Your task to perform on an android device: Open network settings Image 0: 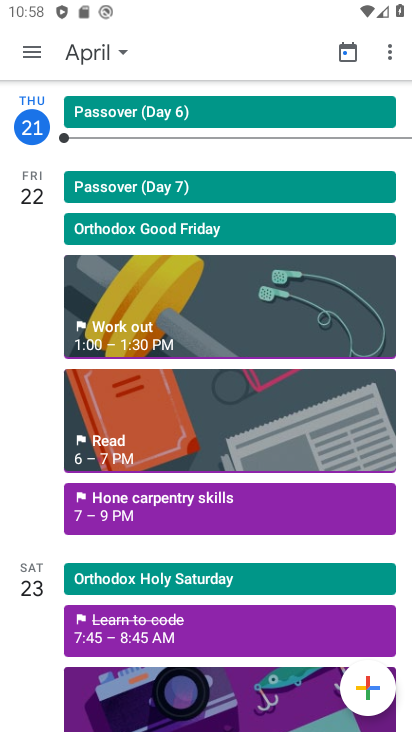
Step 0: press home button
Your task to perform on an android device: Open network settings Image 1: 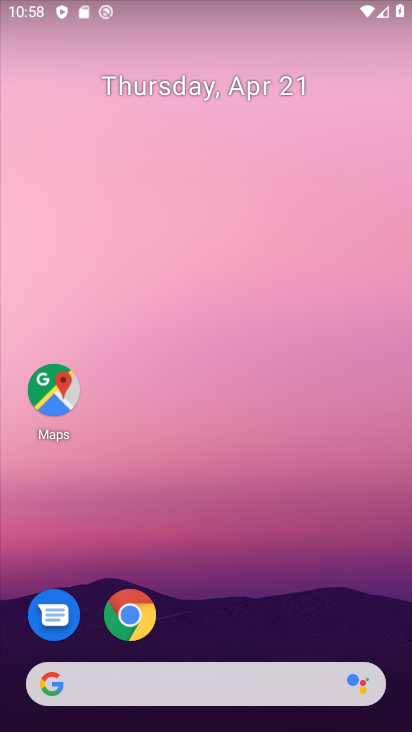
Step 1: drag from (264, 701) to (144, 212)
Your task to perform on an android device: Open network settings Image 2: 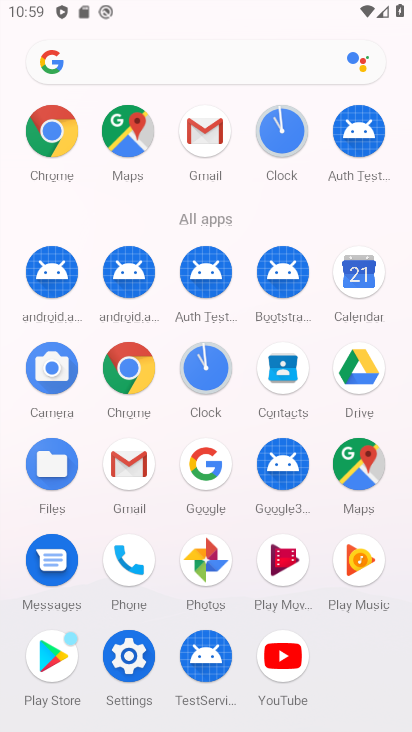
Step 2: click (137, 660)
Your task to perform on an android device: Open network settings Image 3: 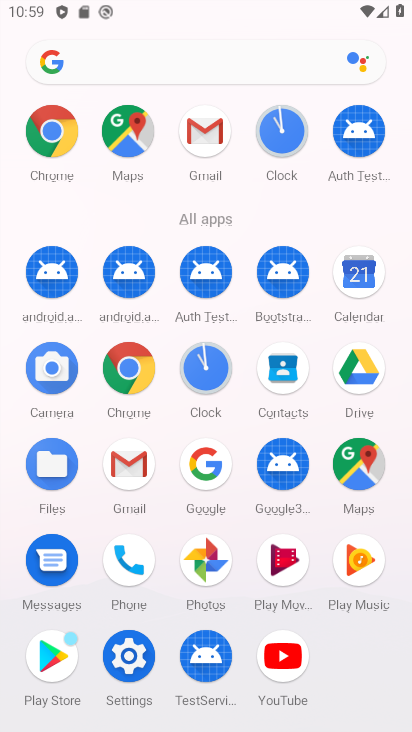
Step 3: click (136, 659)
Your task to perform on an android device: Open network settings Image 4: 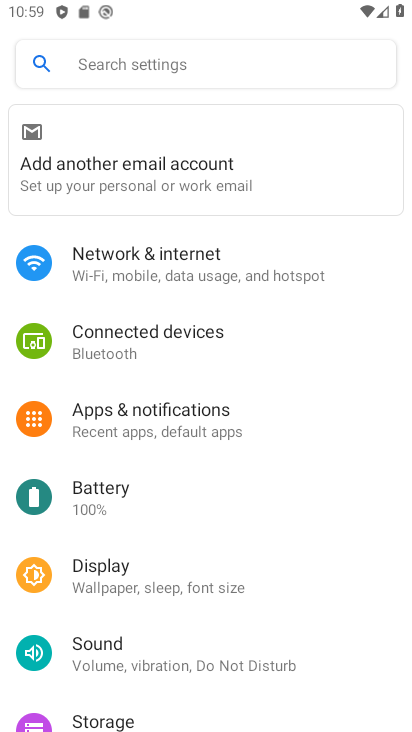
Step 4: click (150, 272)
Your task to perform on an android device: Open network settings Image 5: 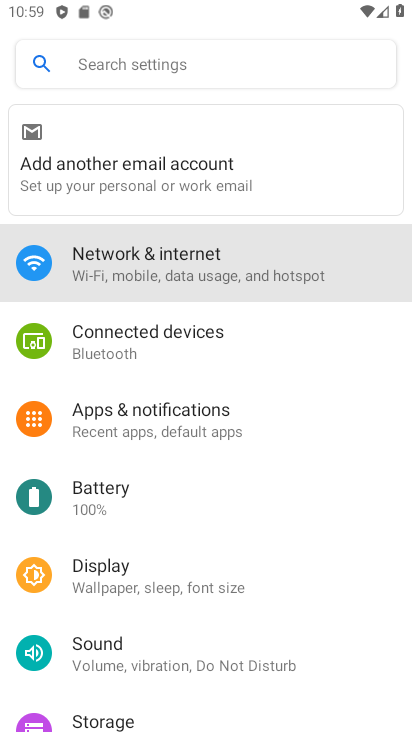
Step 5: click (150, 272)
Your task to perform on an android device: Open network settings Image 6: 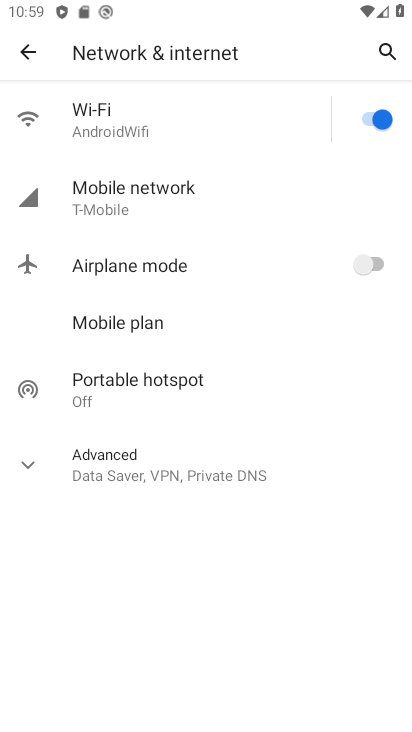
Step 6: task complete